Your task to perform on an android device: check the backup settings in the google photos Image 0: 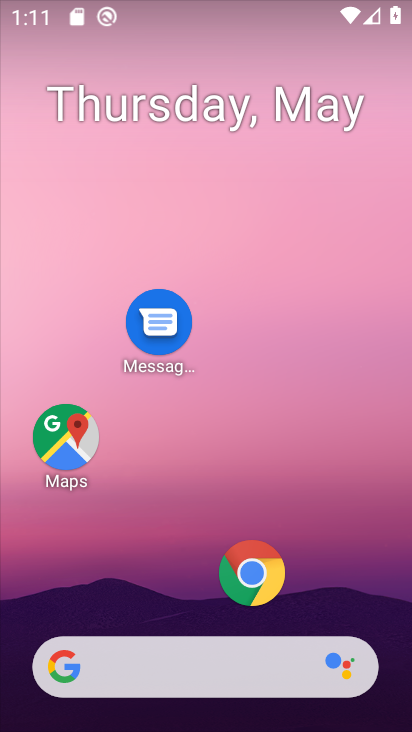
Step 0: drag from (184, 602) to (240, 70)
Your task to perform on an android device: check the backup settings in the google photos Image 1: 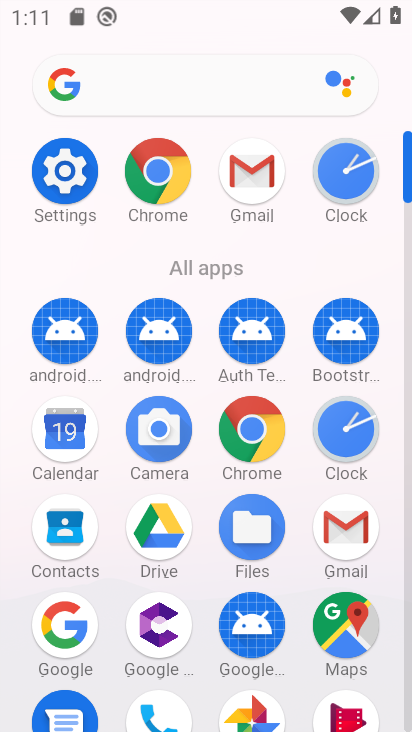
Step 1: drag from (203, 679) to (187, 130)
Your task to perform on an android device: check the backup settings in the google photos Image 2: 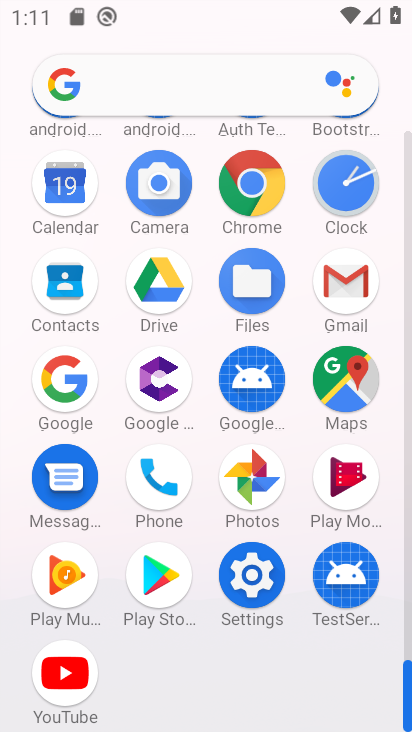
Step 2: click (254, 472)
Your task to perform on an android device: check the backup settings in the google photos Image 3: 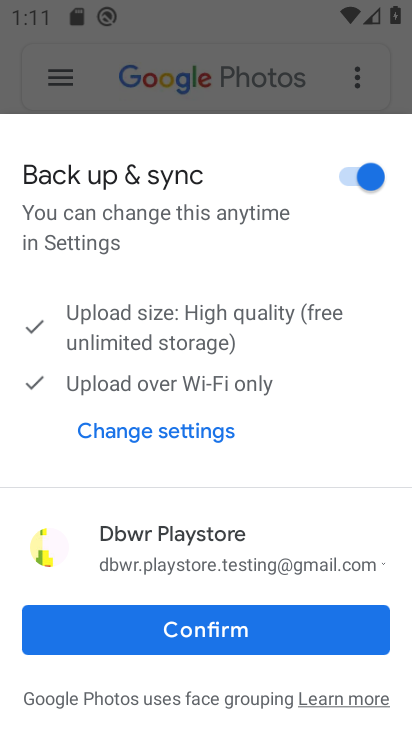
Step 3: click (200, 627)
Your task to perform on an android device: check the backup settings in the google photos Image 4: 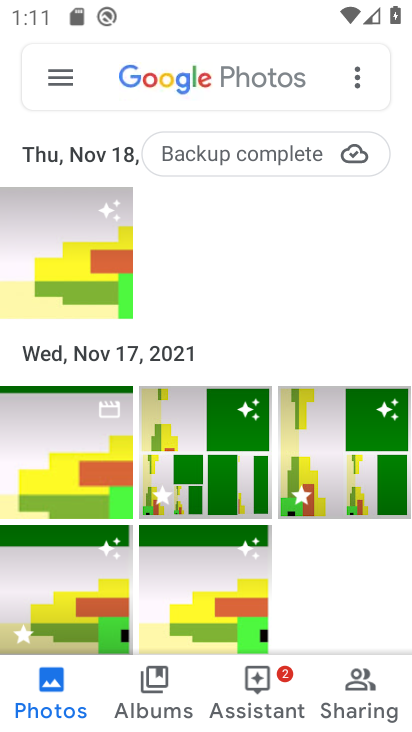
Step 4: click (359, 61)
Your task to perform on an android device: check the backup settings in the google photos Image 5: 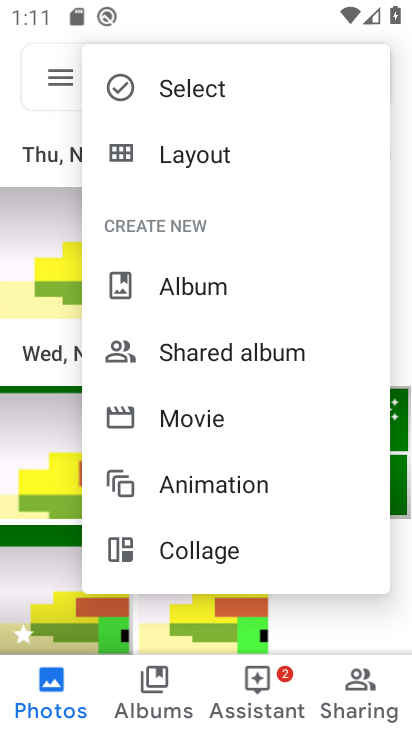
Step 5: click (58, 79)
Your task to perform on an android device: check the backup settings in the google photos Image 6: 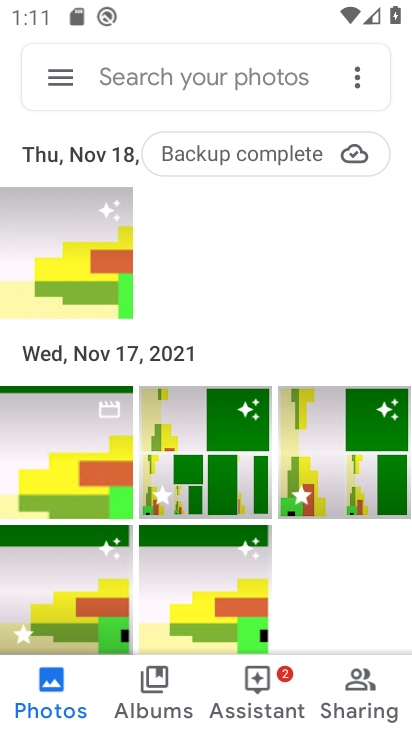
Step 6: click (57, 78)
Your task to perform on an android device: check the backup settings in the google photos Image 7: 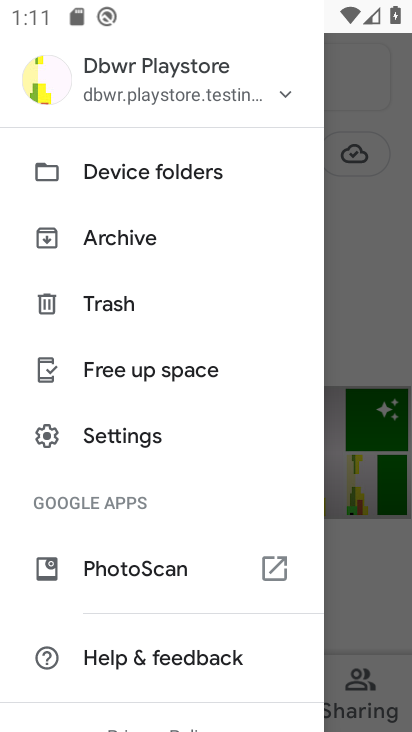
Step 7: drag from (133, 584) to (167, 97)
Your task to perform on an android device: check the backup settings in the google photos Image 8: 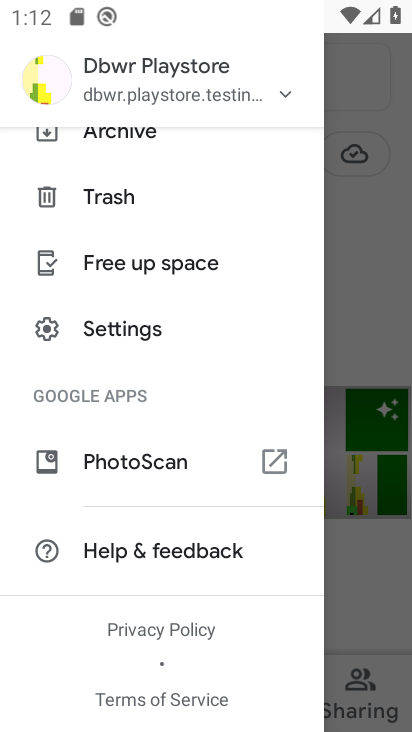
Step 8: click (135, 331)
Your task to perform on an android device: check the backup settings in the google photos Image 9: 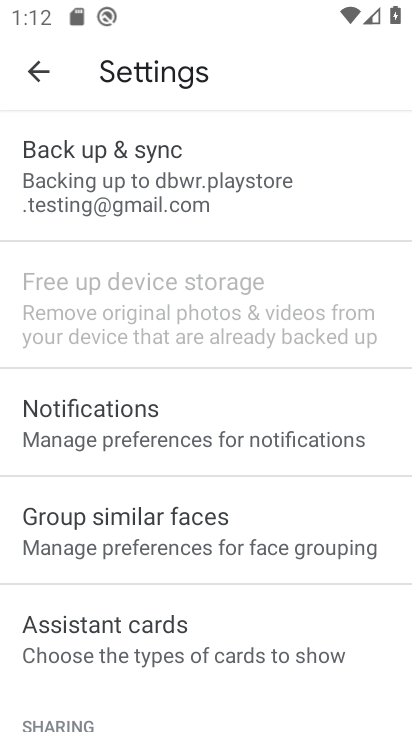
Step 9: drag from (168, 580) to (219, 138)
Your task to perform on an android device: check the backup settings in the google photos Image 10: 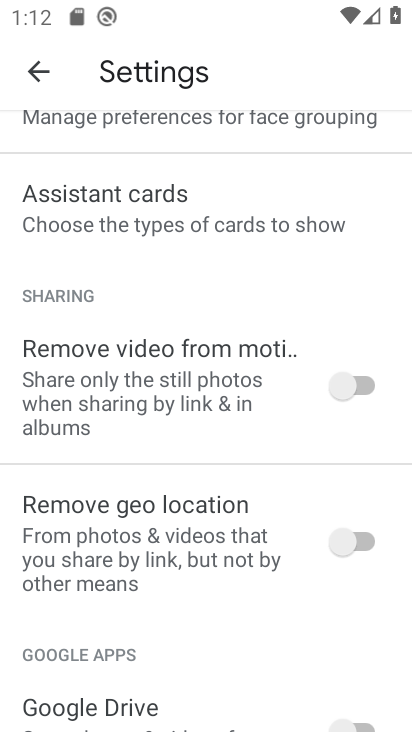
Step 10: drag from (178, 215) to (245, 721)
Your task to perform on an android device: check the backup settings in the google photos Image 11: 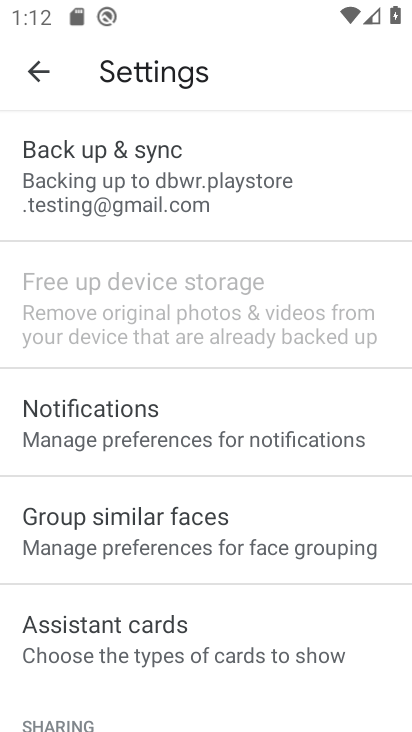
Step 11: click (167, 189)
Your task to perform on an android device: check the backup settings in the google photos Image 12: 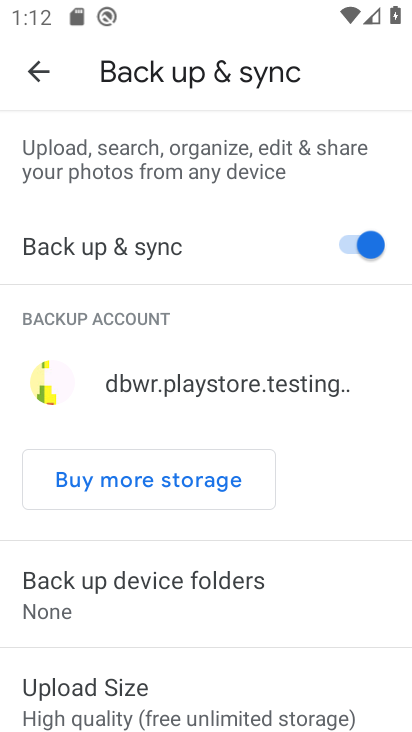
Step 12: task complete